Your task to perform on an android device: empty trash in the gmail app Image 0: 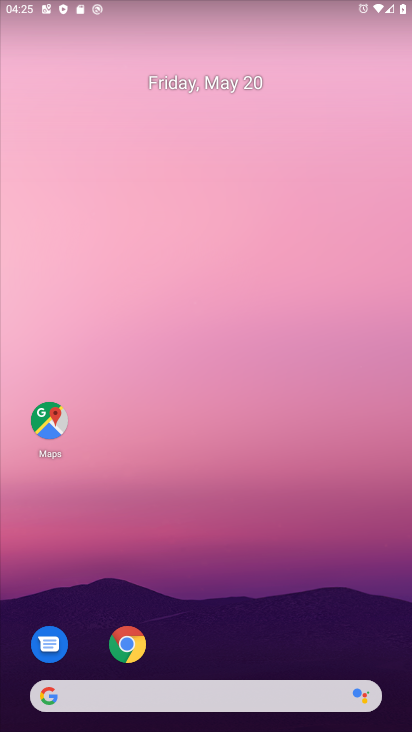
Step 0: drag from (279, 594) to (255, 91)
Your task to perform on an android device: empty trash in the gmail app Image 1: 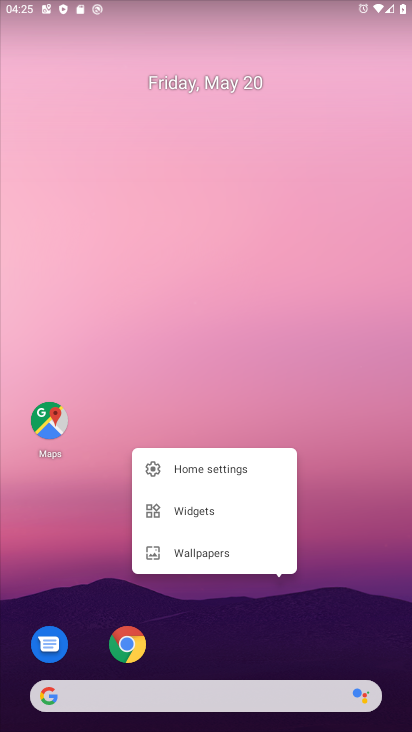
Step 1: click (255, 91)
Your task to perform on an android device: empty trash in the gmail app Image 2: 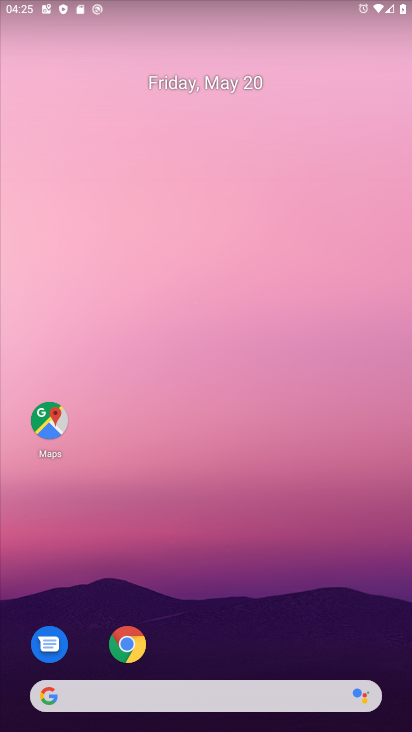
Step 2: drag from (270, 587) to (231, 94)
Your task to perform on an android device: empty trash in the gmail app Image 3: 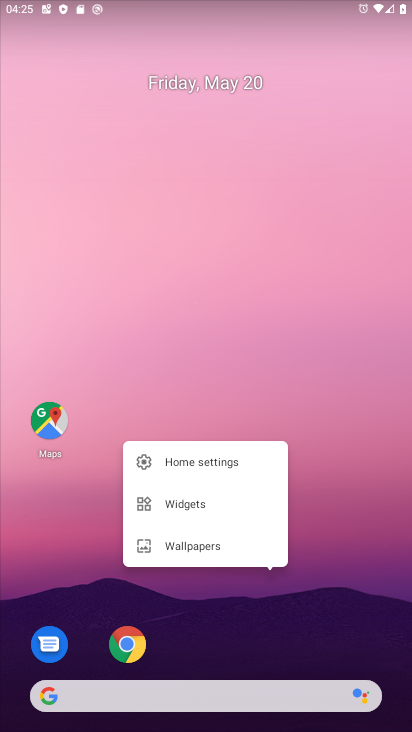
Step 3: click (274, 376)
Your task to perform on an android device: empty trash in the gmail app Image 4: 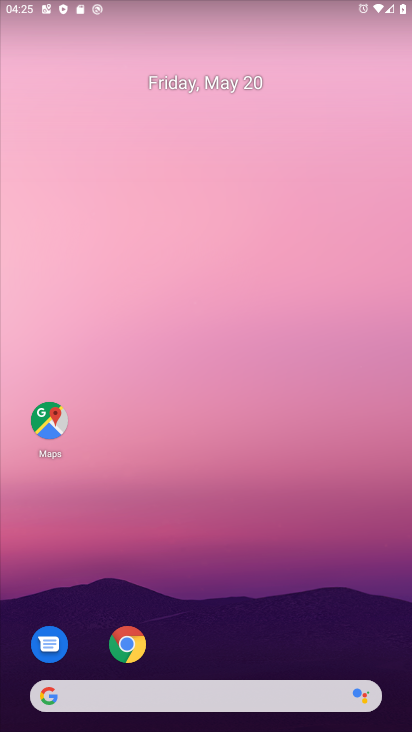
Step 4: drag from (250, 550) to (231, 122)
Your task to perform on an android device: empty trash in the gmail app Image 5: 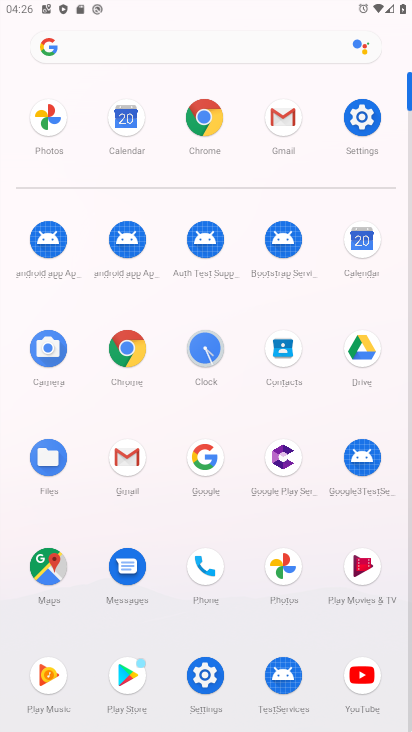
Step 5: click (295, 150)
Your task to perform on an android device: empty trash in the gmail app Image 6: 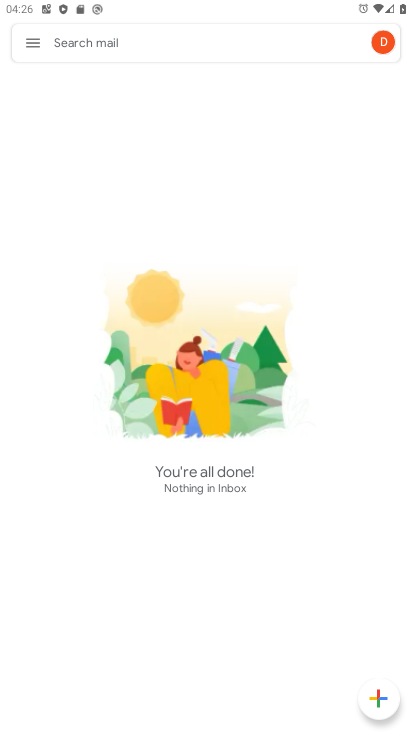
Step 6: task complete